Your task to perform on an android device: turn notification dots off Image 0: 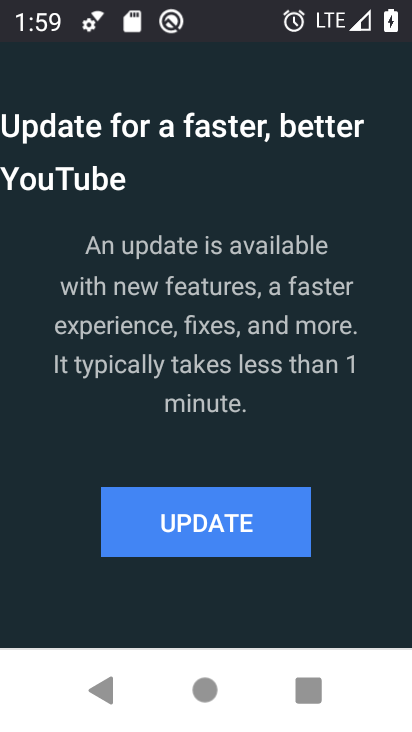
Step 0: press home button
Your task to perform on an android device: turn notification dots off Image 1: 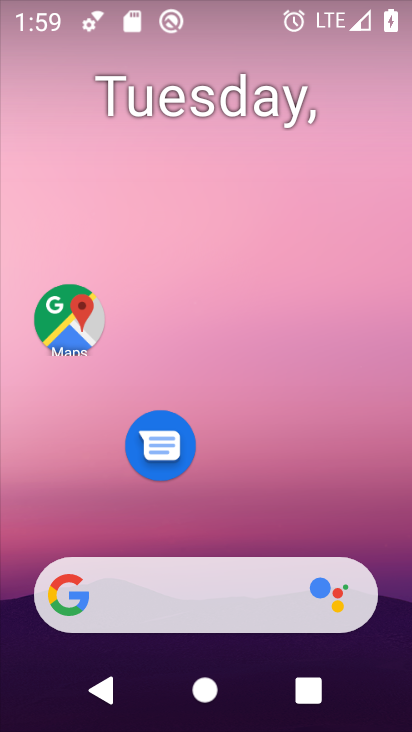
Step 1: drag from (228, 496) to (211, 2)
Your task to perform on an android device: turn notification dots off Image 2: 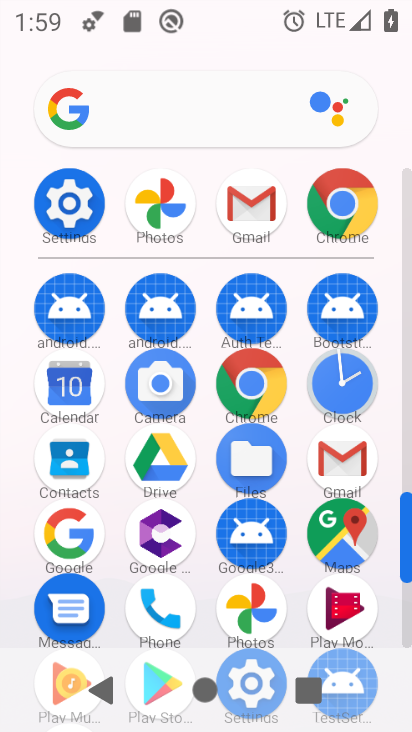
Step 2: click (66, 203)
Your task to perform on an android device: turn notification dots off Image 3: 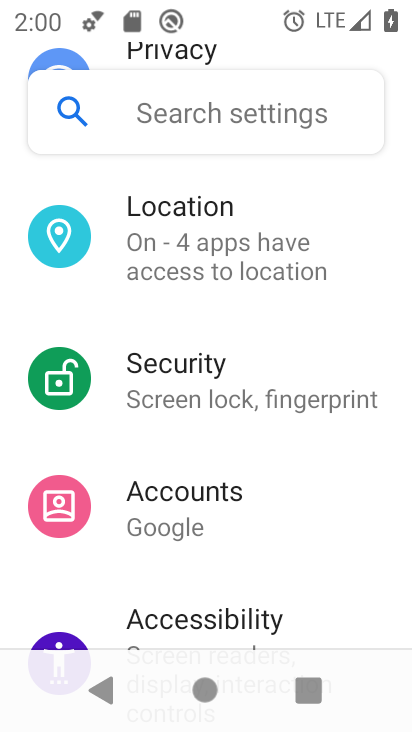
Step 3: drag from (237, 307) to (295, 713)
Your task to perform on an android device: turn notification dots off Image 4: 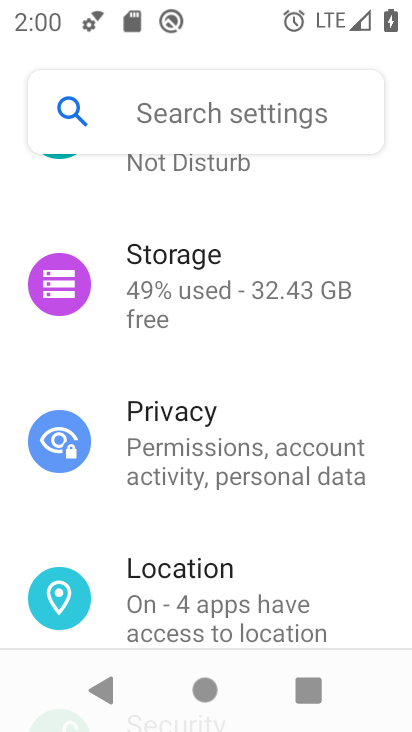
Step 4: drag from (197, 218) to (261, 675)
Your task to perform on an android device: turn notification dots off Image 5: 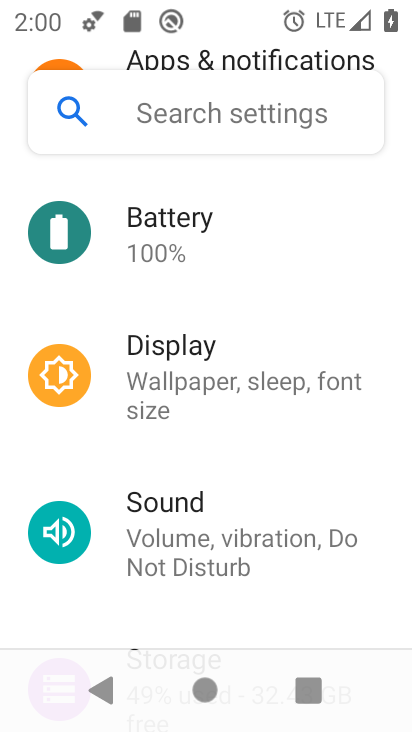
Step 5: drag from (209, 295) to (234, 691)
Your task to perform on an android device: turn notification dots off Image 6: 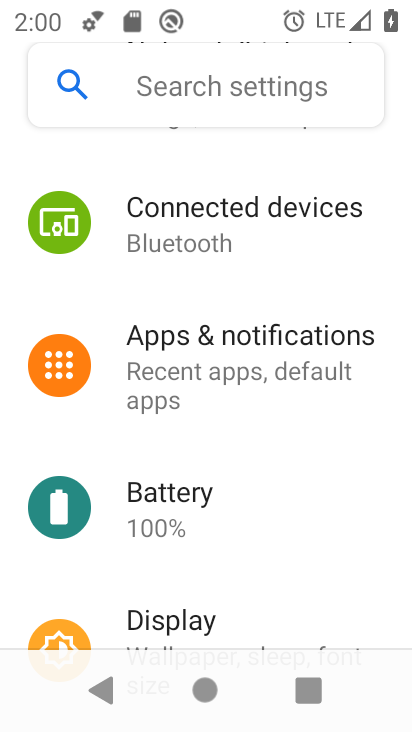
Step 6: click (252, 329)
Your task to perform on an android device: turn notification dots off Image 7: 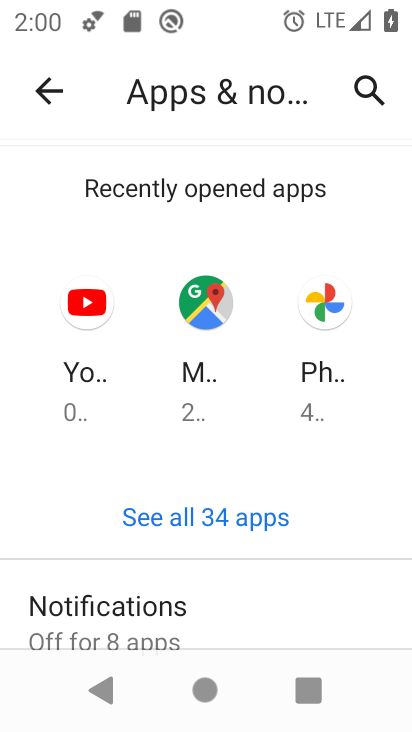
Step 7: drag from (218, 579) to (128, 115)
Your task to perform on an android device: turn notification dots off Image 8: 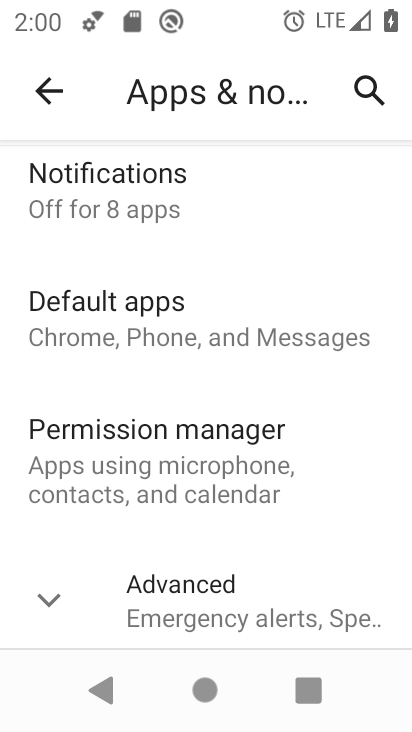
Step 8: drag from (108, 529) to (82, 169)
Your task to perform on an android device: turn notification dots off Image 9: 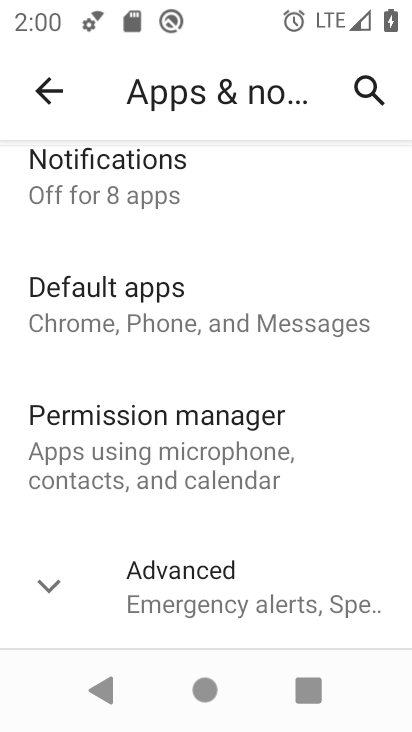
Step 9: click (48, 586)
Your task to perform on an android device: turn notification dots off Image 10: 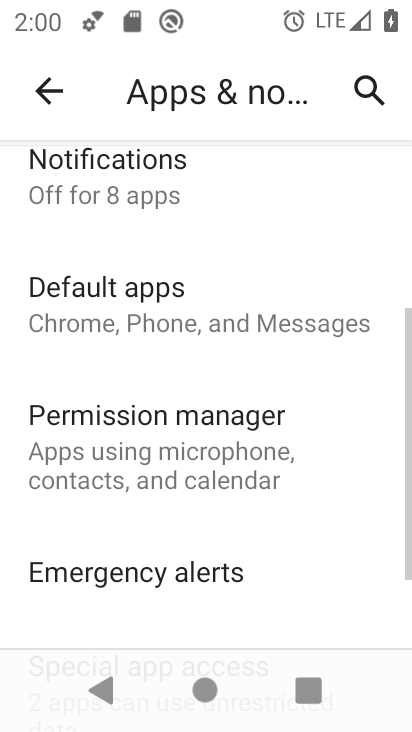
Step 10: drag from (262, 496) to (249, 172)
Your task to perform on an android device: turn notification dots off Image 11: 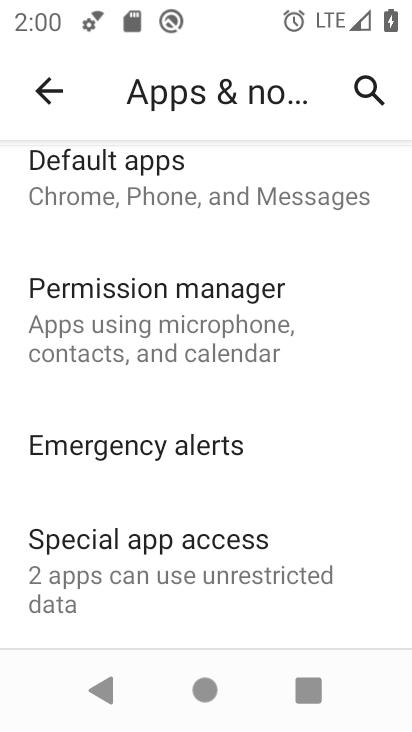
Step 11: click (180, 553)
Your task to perform on an android device: turn notification dots off Image 12: 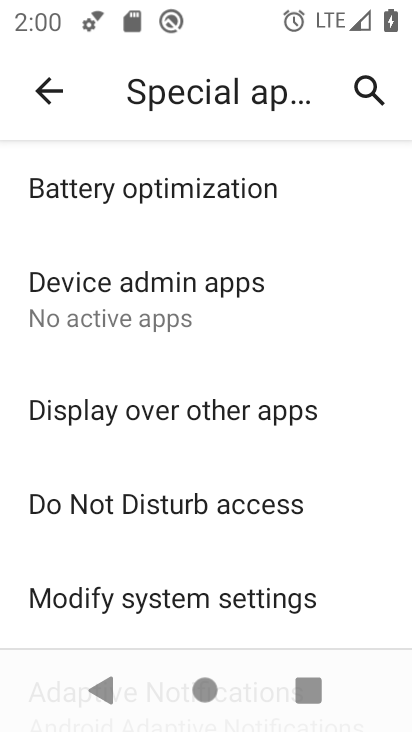
Step 12: click (40, 80)
Your task to perform on an android device: turn notification dots off Image 13: 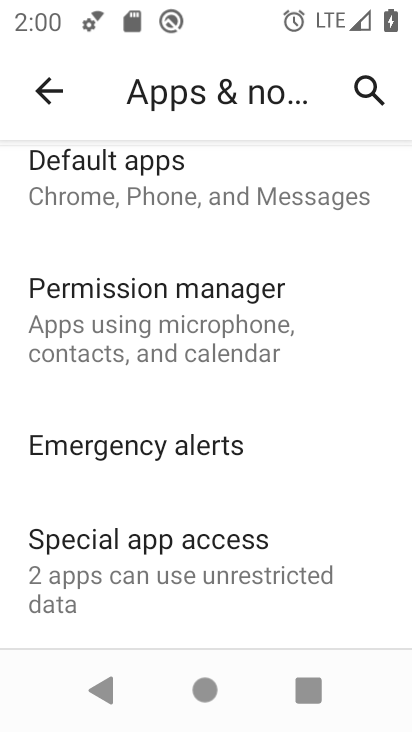
Step 13: drag from (177, 261) to (190, 470)
Your task to perform on an android device: turn notification dots off Image 14: 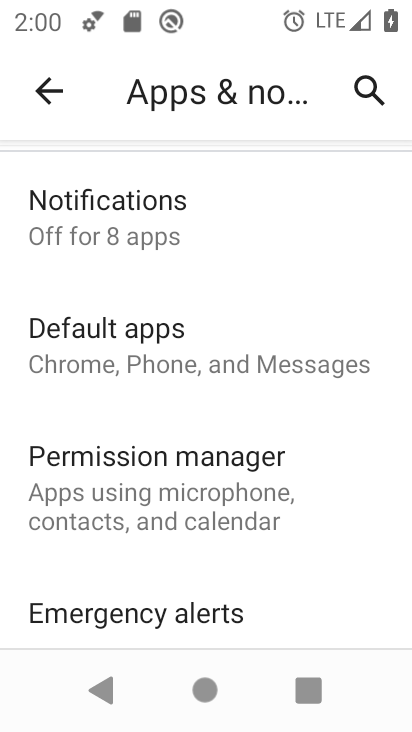
Step 14: click (134, 187)
Your task to perform on an android device: turn notification dots off Image 15: 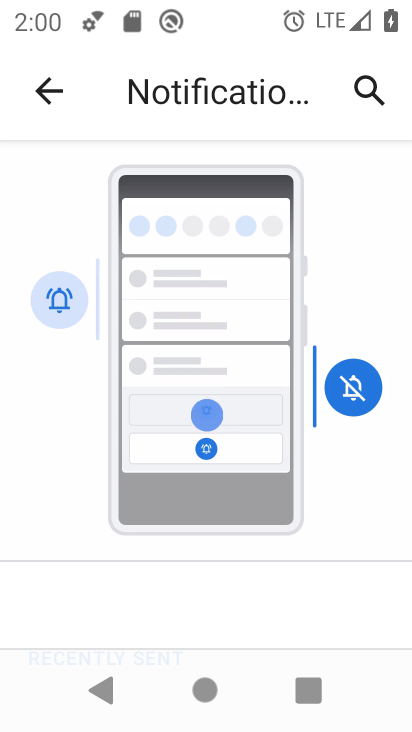
Step 15: drag from (334, 544) to (254, 84)
Your task to perform on an android device: turn notification dots off Image 16: 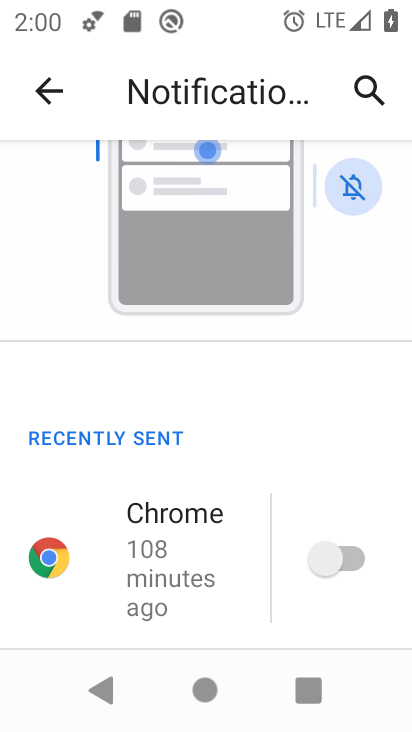
Step 16: drag from (280, 501) to (252, 120)
Your task to perform on an android device: turn notification dots off Image 17: 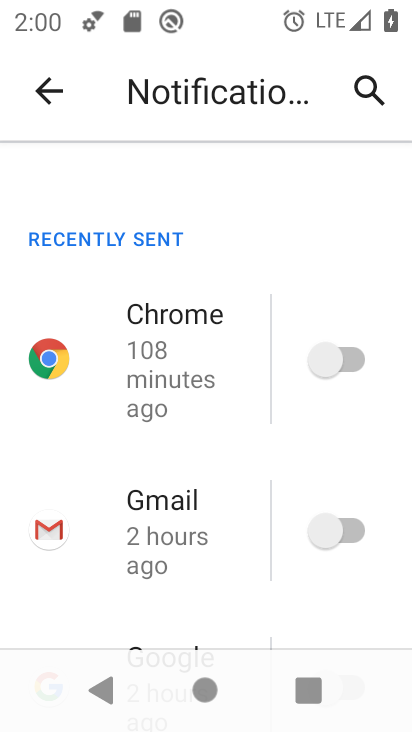
Step 17: drag from (231, 542) to (169, 4)
Your task to perform on an android device: turn notification dots off Image 18: 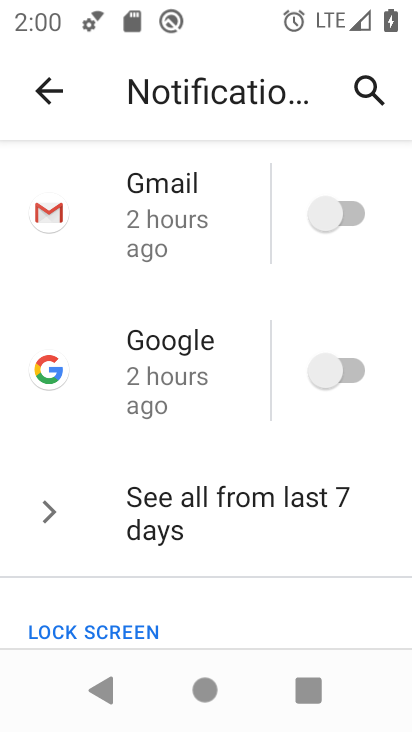
Step 18: drag from (232, 583) to (186, 312)
Your task to perform on an android device: turn notification dots off Image 19: 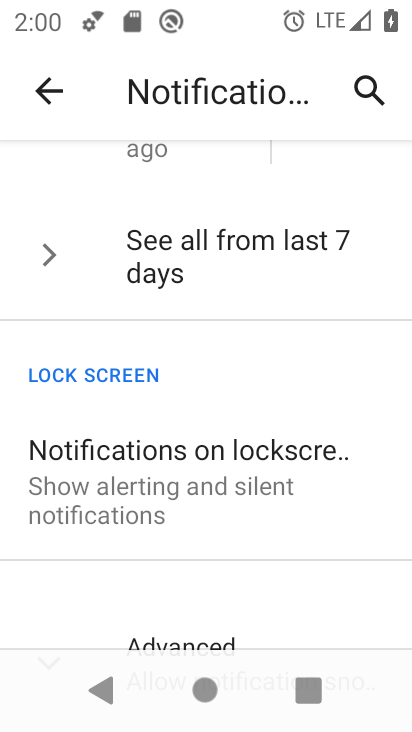
Step 19: drag from (226, 417) to (219, 110)
Your task to perform on an android device: turn notification dots off Image 20: 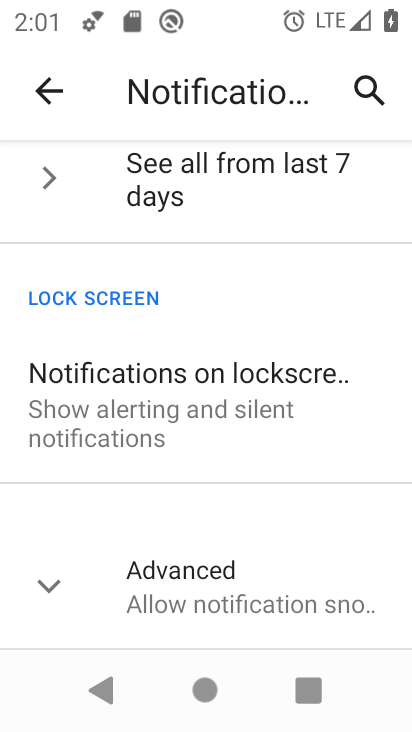
Step 20: click (71, 569)
Your task to perform on an android device: turn notification dots off Image 21: 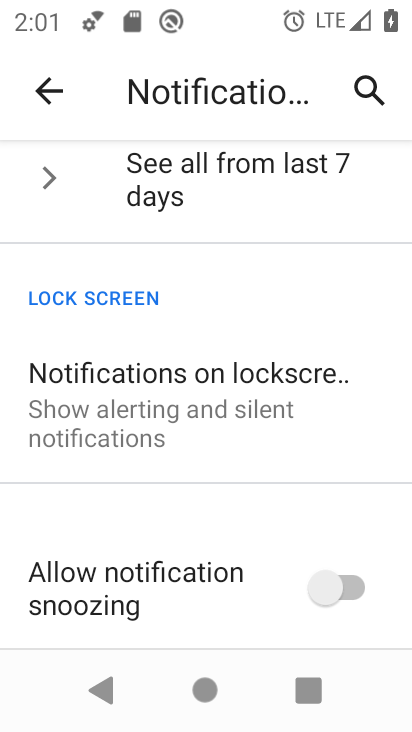
Step 21: task complete